Your task to perform on an android device: Is it going to rain today? Image 0: 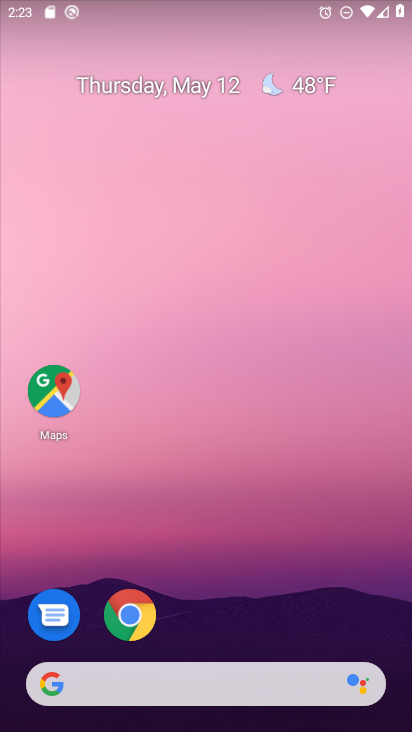
Step 0: drag from (290, 679) to (230, 145)
Your task to perform on an android device: Is it going to rain today? Image 1: 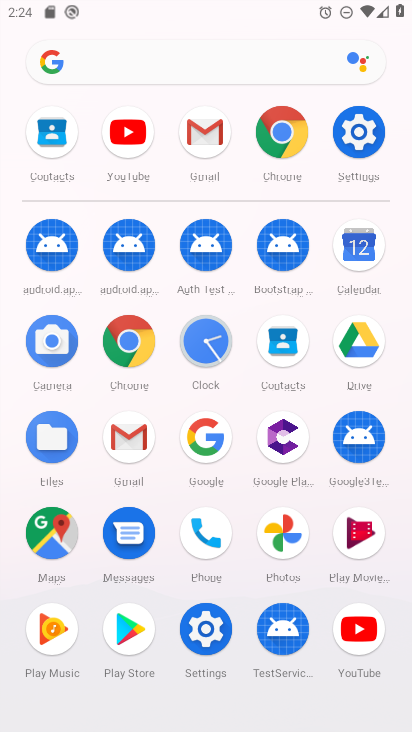
Step 1: click (133, 349)
Your task to perform on an android device: Is it going to rain today? Image 2: 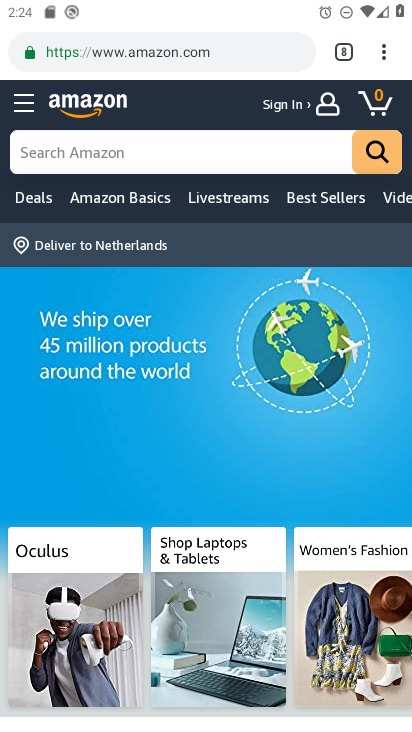
Step 2: click (263, 58)
Your task to perform on an android device: Is it going to rain today? Image 3: 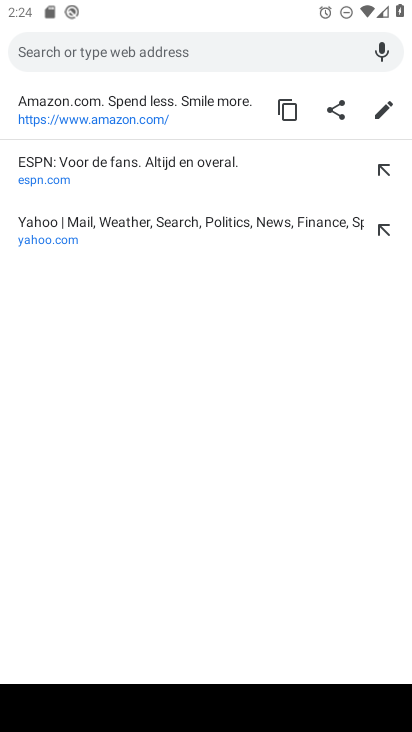
Step 3: type "going to rain today"
Your task to perform on an android device: Is it going to rain today? Image 4: 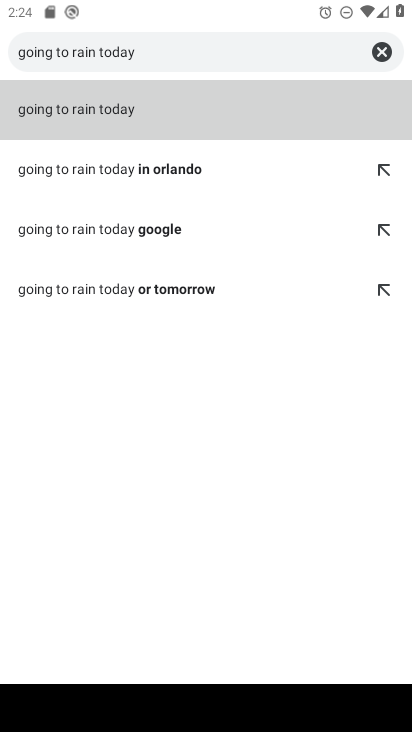
Step 4: click (111, 78)
Your task to perform on an android device: Is it going to rain today? Image 5: 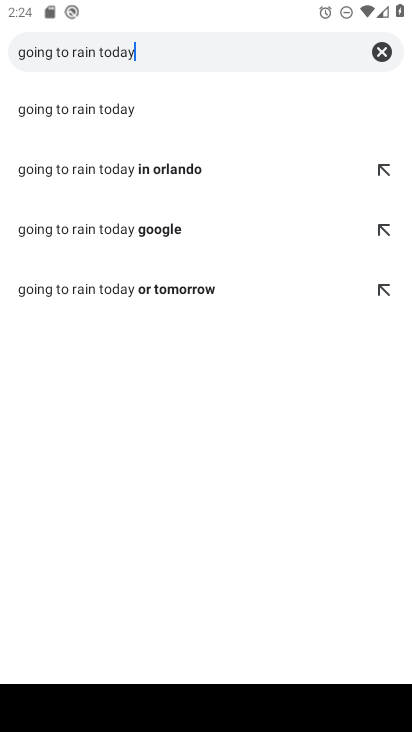
Step 5: click (110, 114)
Your task to perform on an android device: Is it going to rain today? Image 6: 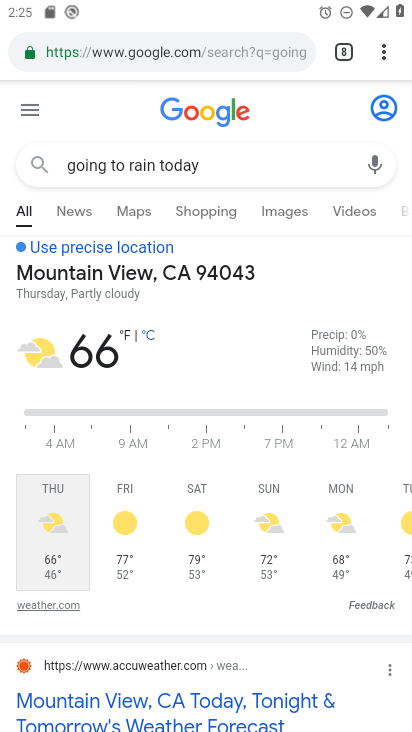
Step 6: task complete